Your task to perform on an android device: check data usage Image 0: 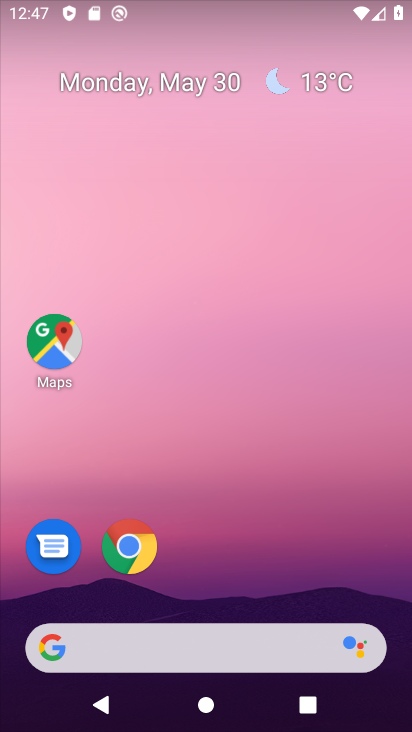
Step 0: press home button
Your task to perform on an android device: check data usage Image 1: 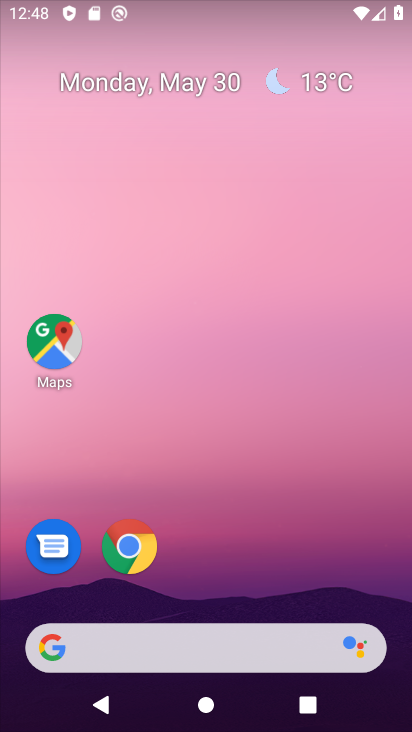
Step 1: drag from (299, 599) to (378, 36)
Your task to perform on an android device: check data usage Image 2: 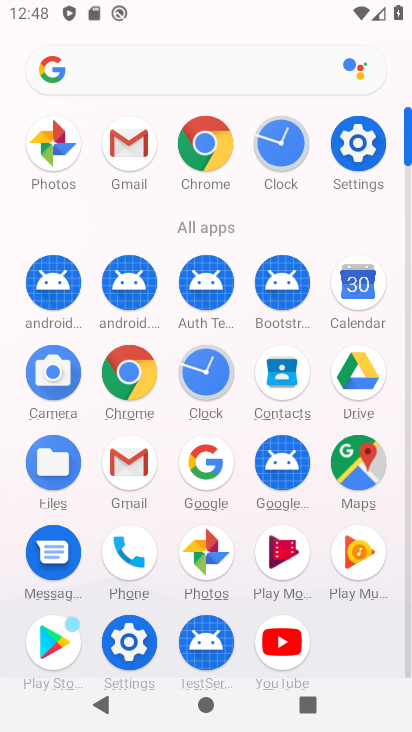
Step 2: click (362, 163)
Your task to perform on an android device: check data usage Image 3: 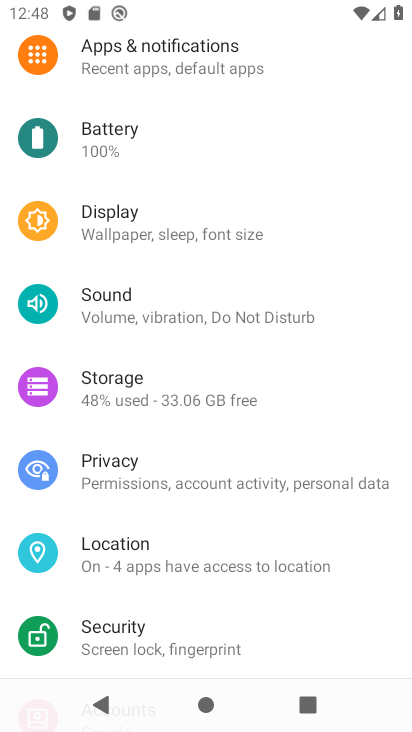
Step 3: drag from (331, 56) to (302, 490)
Your task to perform on an android device: check data usage Image 4: 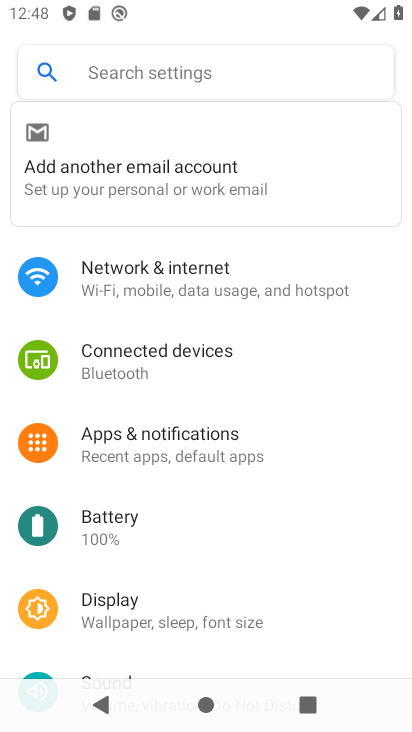
Step 4: click (149, 275)
Your task to perform on an android device: check data usage Image 5: 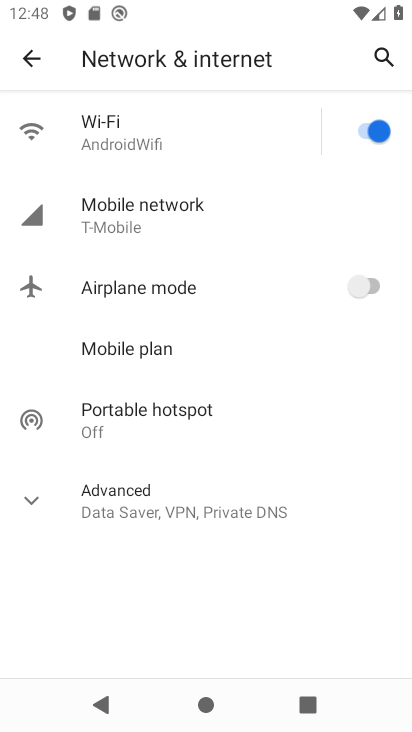
Step 5: click (129, 212)
Your task to perform on an android device: check data usage Image 6: 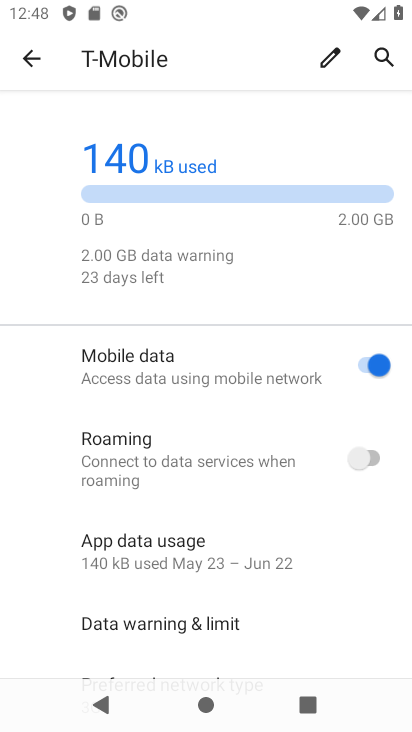
Step 6: click (144, 538)
Your task to perform on an android device: check data usage Image 7: 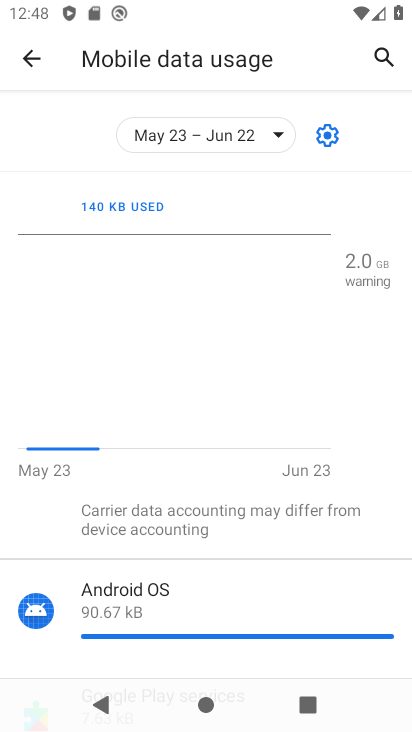
Step 7: task complete